Your task to perform on an android device: change the clock display to analog Image 0: 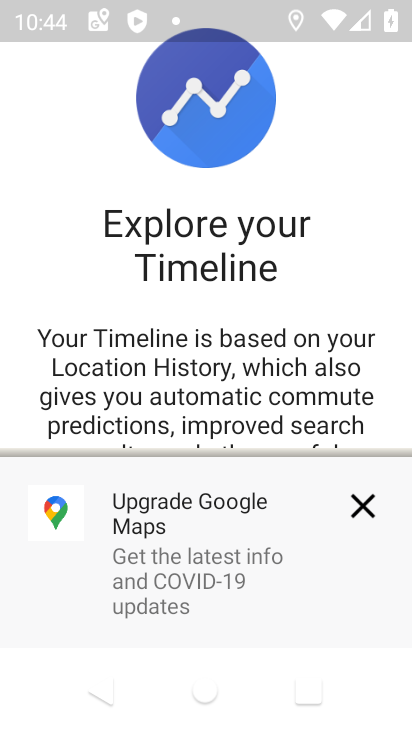
Step 0: press home button
Your task to perform on an android device: change the clock display to analog Image 1: 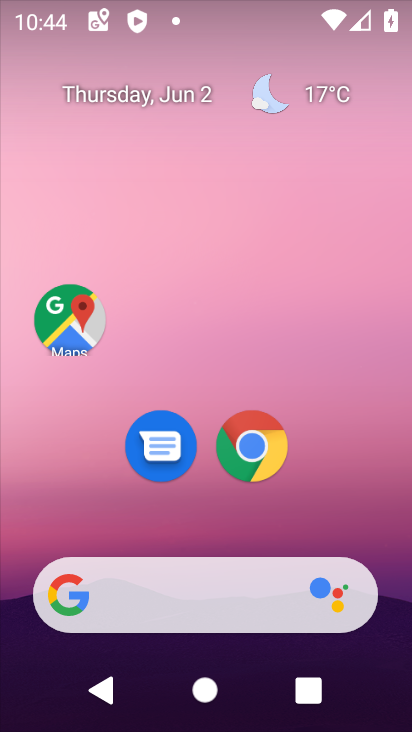
Step 1: drag from (366, 512) to (388, 207)
Your task to perform on an android device: change the clock display to analog Image 2: 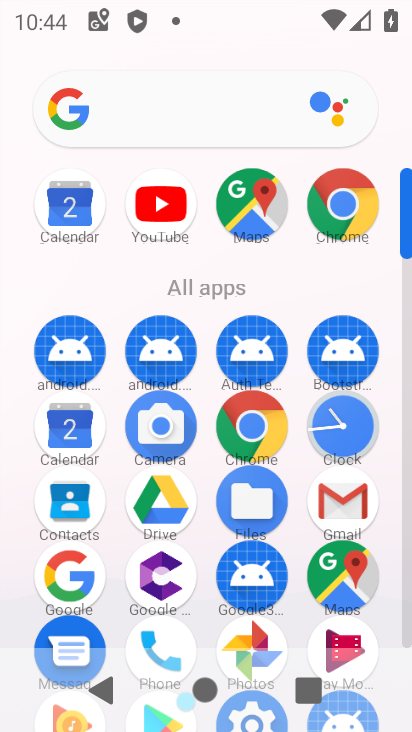
Step 2: click (364, 436)
Your task to perform on an android device: change the clock display to analog Image 3: 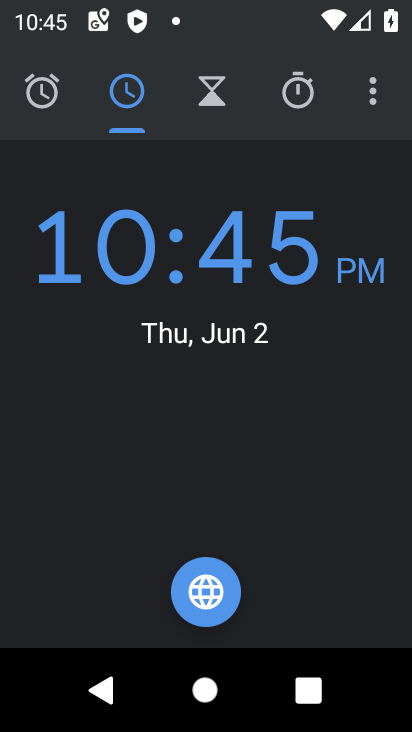
Step 3: click (368, 105)
Your task to perform on an android device: change the clock display to analog Image 4: 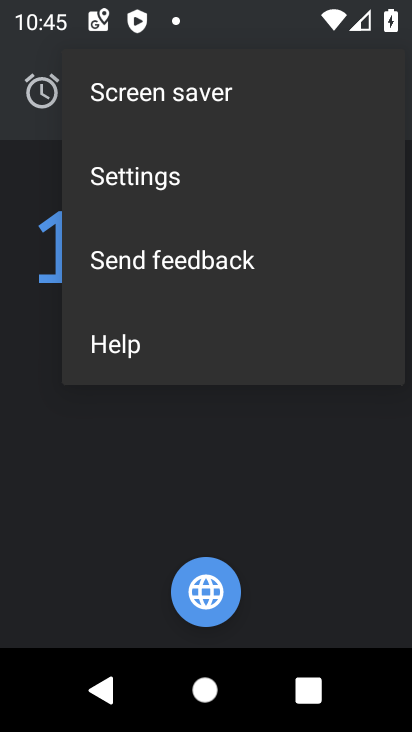
Step 4: click (167, 197)
Your task to perform on an android device: change the clock display to analog Image 5: 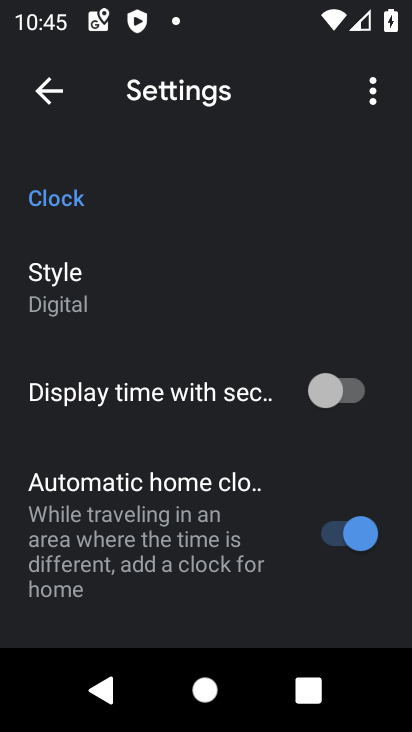
Step 5: drag from (292, 521) to (300, 401)
Your task to perform on an android device: change the clock display to analog Image 6: 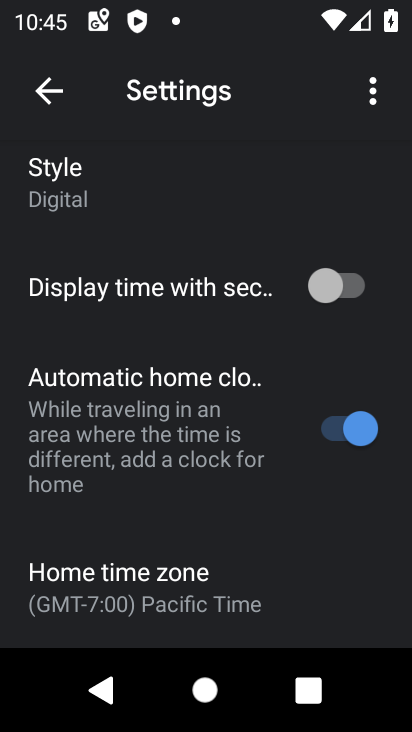
Step 6: drag from (308, 559) to (289, 406)
Your task to perform on an android device: change the clock display to analog Image 7: 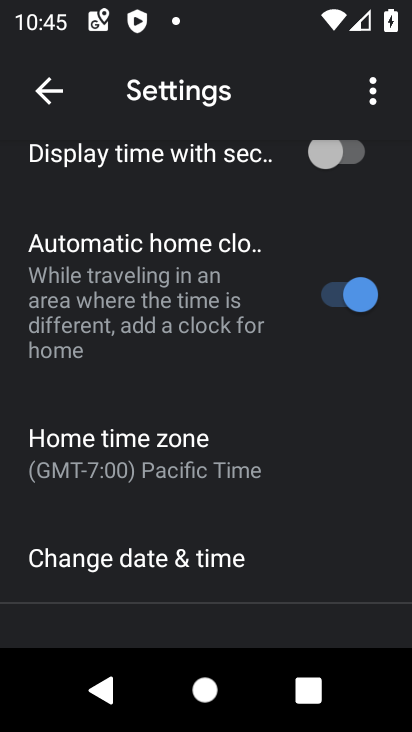
Step 7: drag from (300, 518) to (296, 387)
Your task to perform on an android device: change the clock display to analog Image 8: 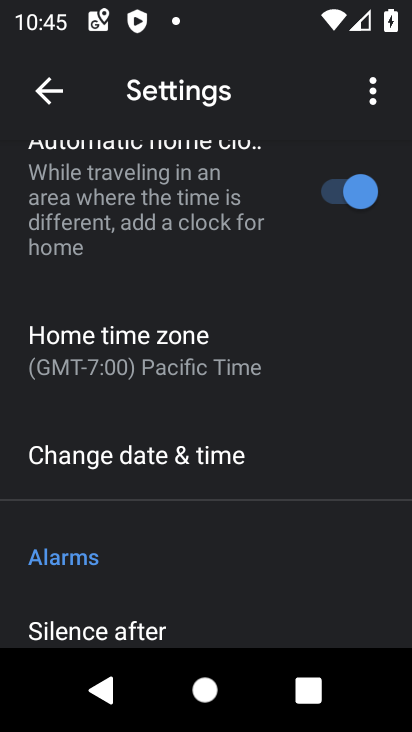
Step 8: drag from (308, 539) to (311, 365)
Your task to perform on an android device: change the clock display to analog Image 9: 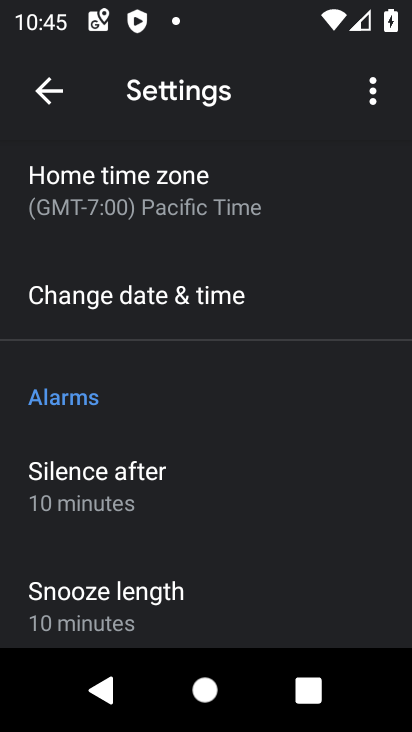
Step 9: drag from (310, 479) to (325, 297)
Your task to perform on an android device: change the clock display to analog Image 10: 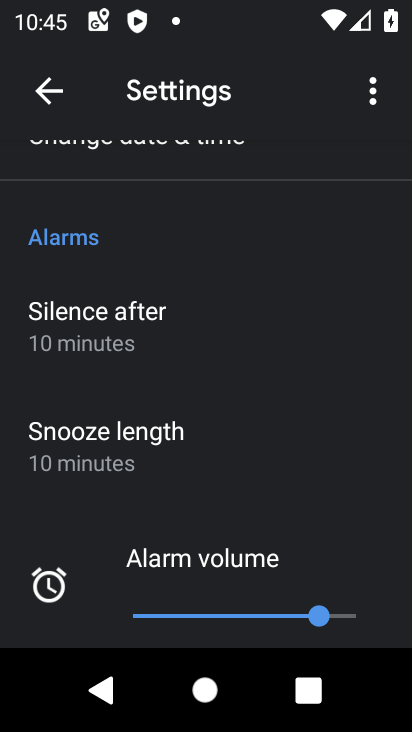
Step 10: drag from (306, 474) to (328, 330)
Your task to perform on an android device: change the clock display to analog Image 11: 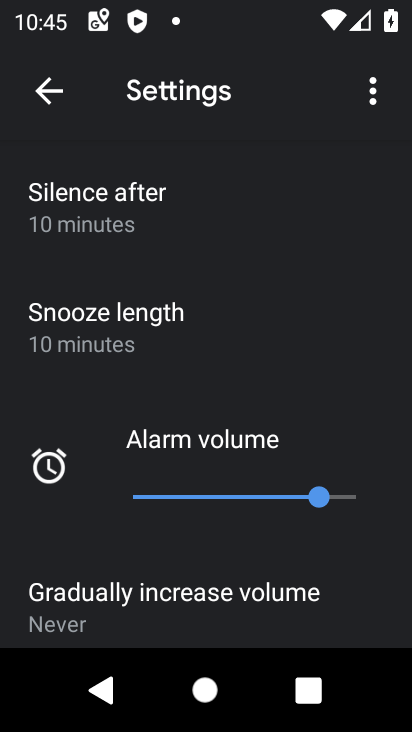
Step 11: drag from (334, 551) to (350, 347)
Your task to perform on an android device: change the clock display to analog Image 12: 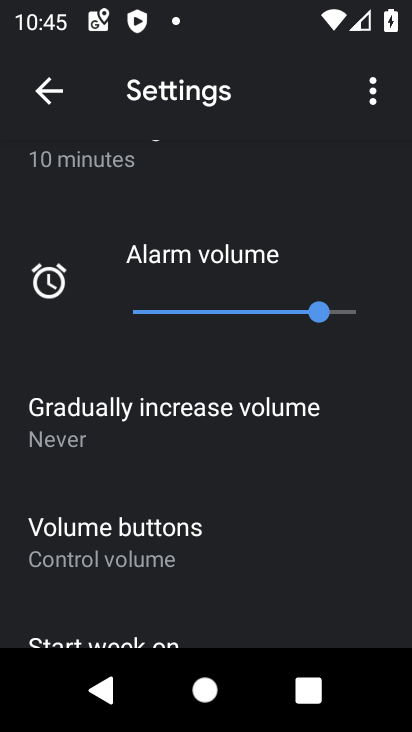
Step 12: drag from (338, 530) to (368, 338)
Your task to perform on an android device: change the clock display to analog Image 13: 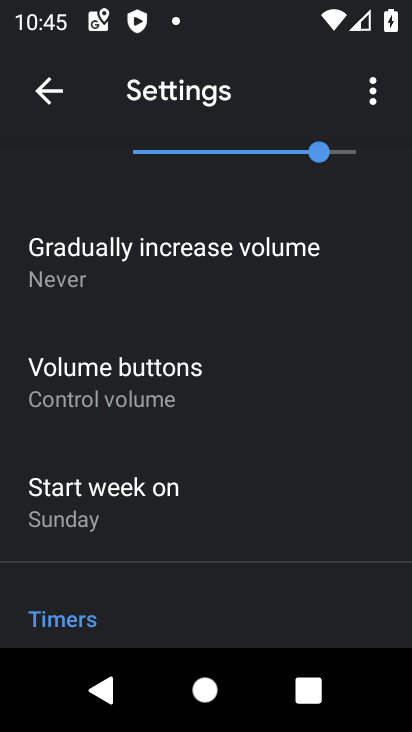
Step 13: drag from (325, 545) to (329, 344)
Your task to perform on an android device: change the clock display to analog Image 14: 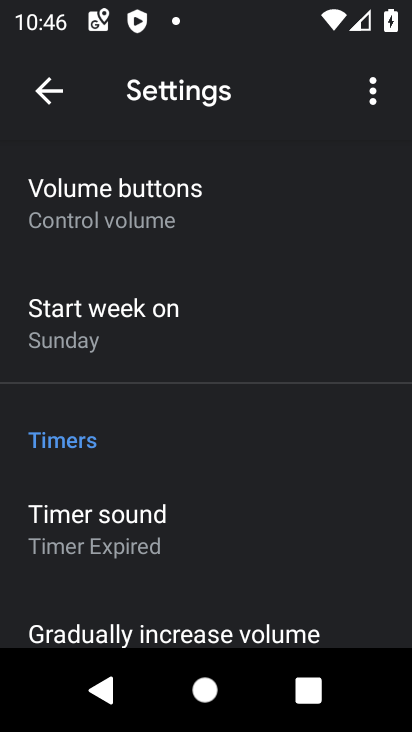
Step 14: drag from (326, 217) to (295, 341)
Your task to perform on an android device: change the clock display to analog Image 15: 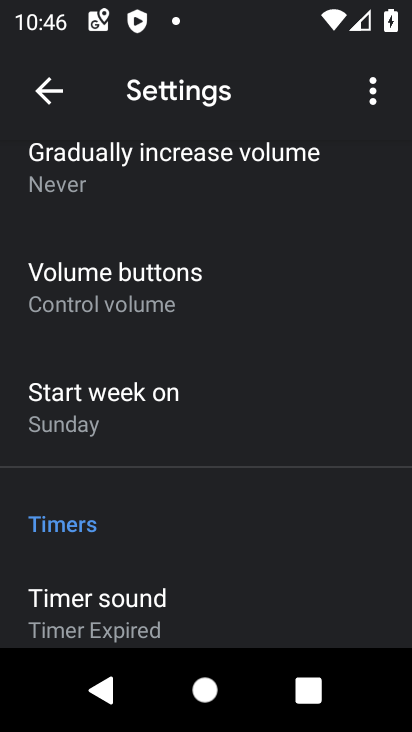
Step 15: drag from (323, 239) to (308, 445)
Your task to perform on an android device: change the clock display to analog Image 16: 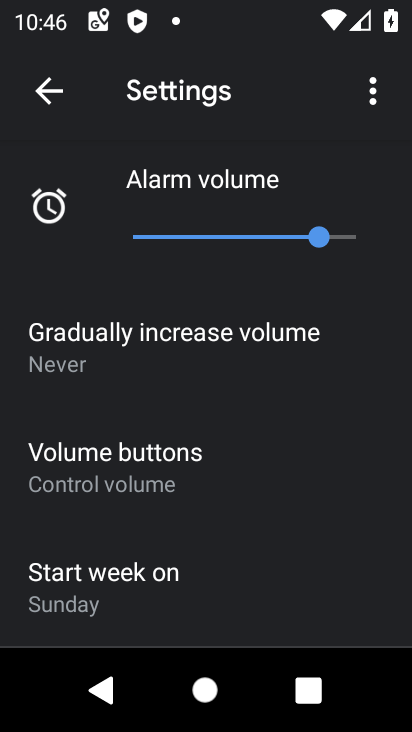
Step 16: drag from (366, 182) to (348, 453)
Your task to perform on an android device: change the clock display to analog Image 17: 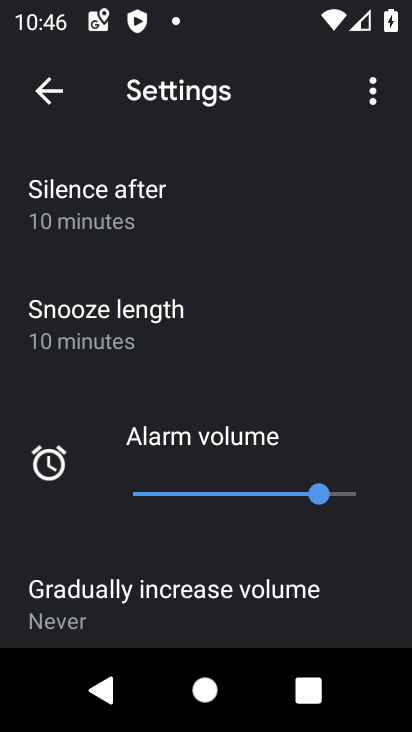
Step 17: drag from (318, 222) to (309, 427)
Your task to perform on an android device: change the clock display to analog Image 18: 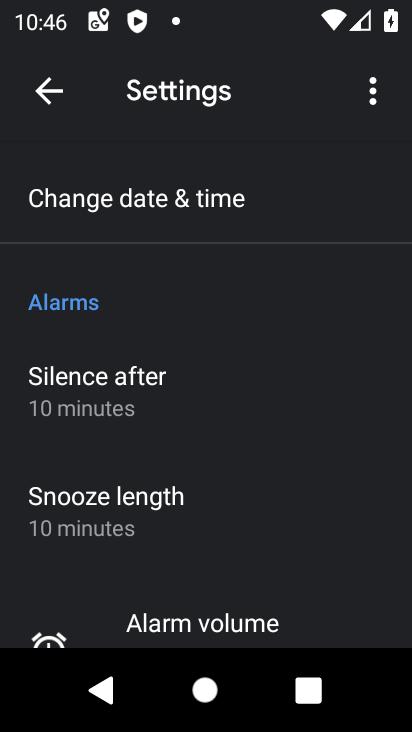
Step 18: drag from (281, 195) to (286, 402)
Your task to perform on an android device: change the clock display to analog Image 19: 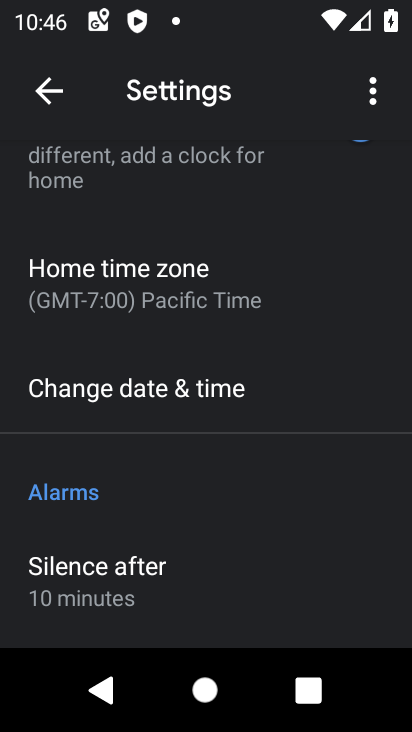
Step 19: drag from (296, 201) to (311, 403)
Your task to perform on an android device: change the clock display to analog Image 20: 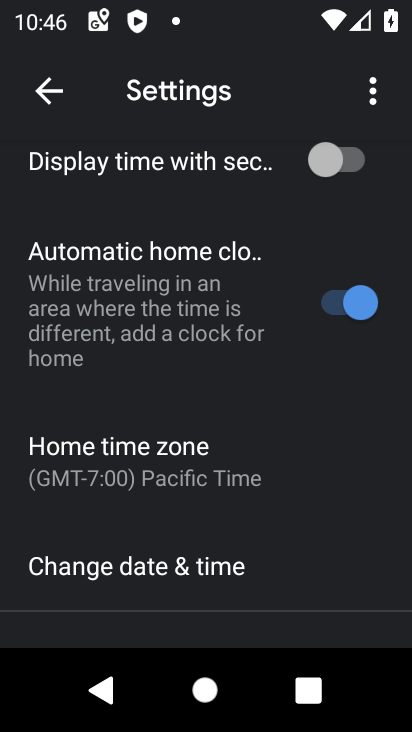
Step 20: drag from (279, 161) to (273, 385)
Your task to perform on an android device: change the clock display to analog Image 21: 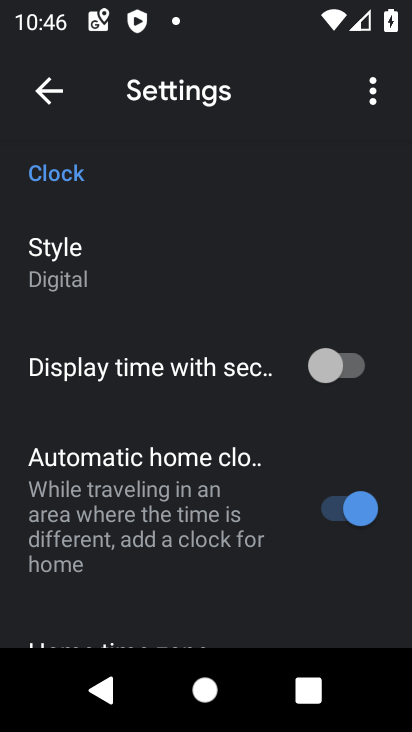
Step 21: click (44, 258)
Your task to perform on an android device: change the clock display to analog Image 22: 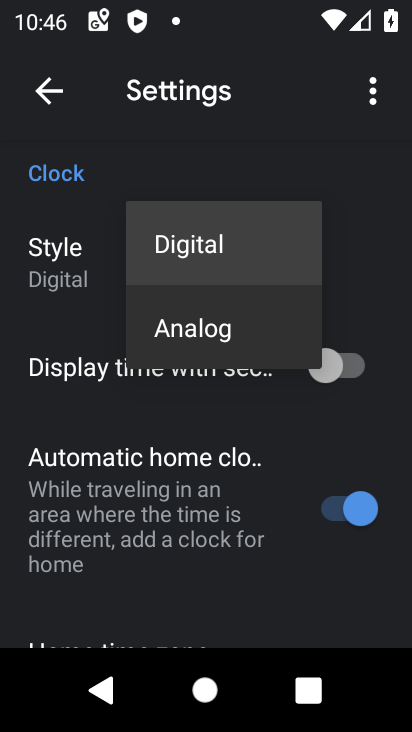
Step 22: click (210, 342)
Your task to perform on an android device: change the clock display to analog Image 23: 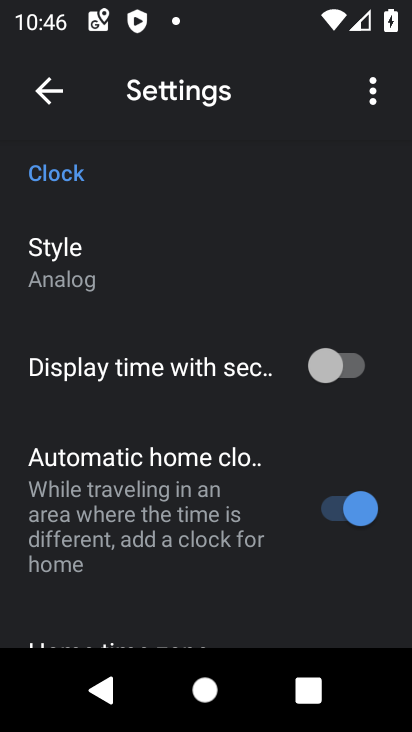
Step 23: task complete